Your task to perform on an android device: Open accessibility settings Image 0: 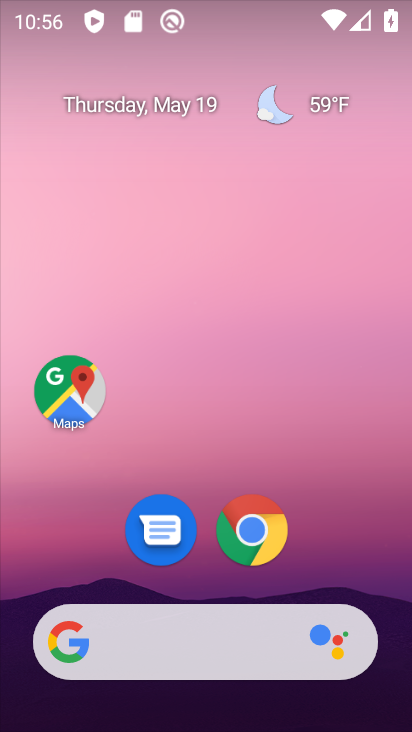
Step 0: drag from (359, 550) to (331, 170)
Your task to perform on an android device: Open accessibility settings Image 1: 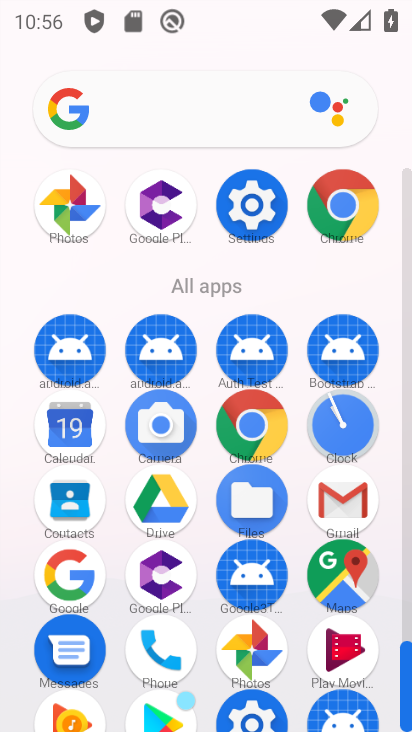
Step 1: click (257, 204)
Your task to perform on an android device: Open accessibility settings Image 2: 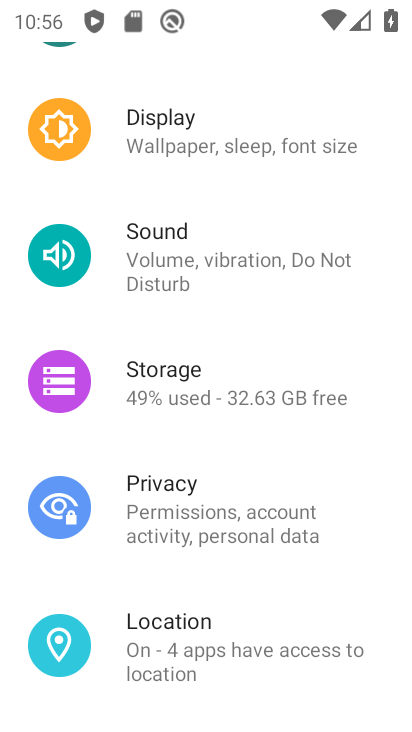
Step 2: drag from (262, 187) to (277, 573)
Your task to perform on an android device: Open accessibility settings Image 3: 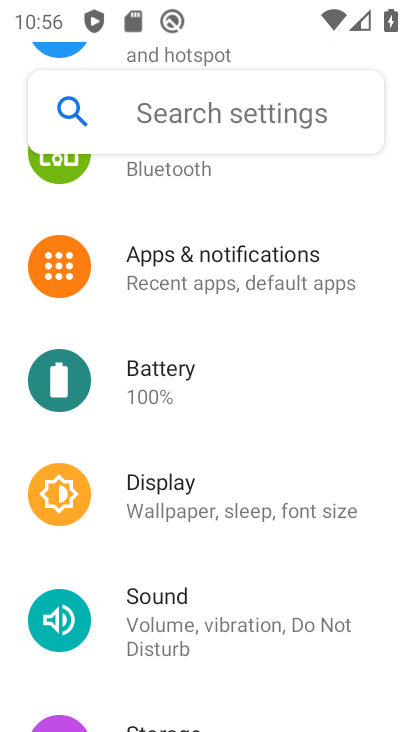
Step 3: drag from (275, 658) to (297, 204)
Your task to perform on an android device: Open accessibility settings Image 4: 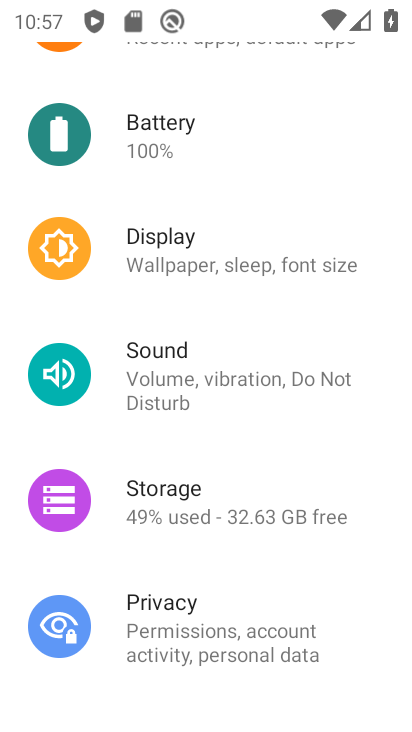
Step 4: drag from (232, 658) to (228, 255)
Your task to perform on an android device: Open accessibility settings Image 5: 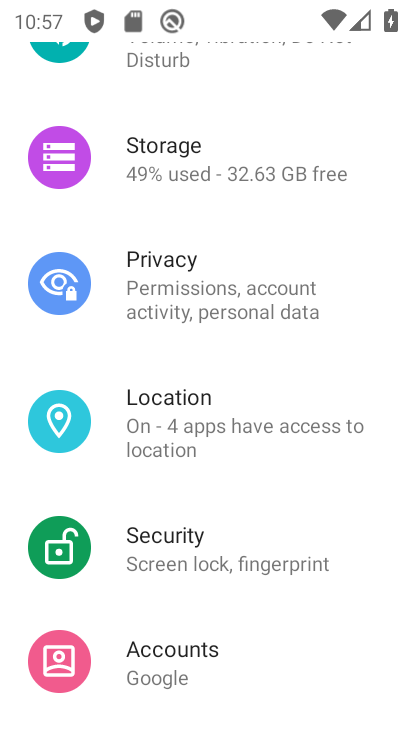
Step 5: drag from (210, 697) to (292, 232)
Your task to perform on an android device: Open accessibility settings Image 6: 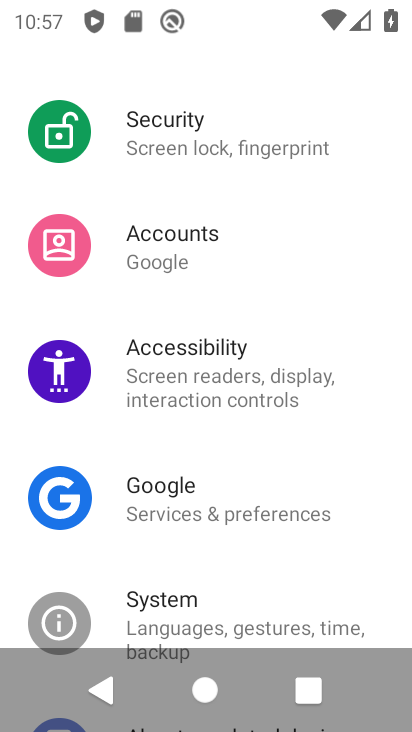
Step 6: click (170, 389)
Your task to perform on an android device: Open accessibility settings Image 7: 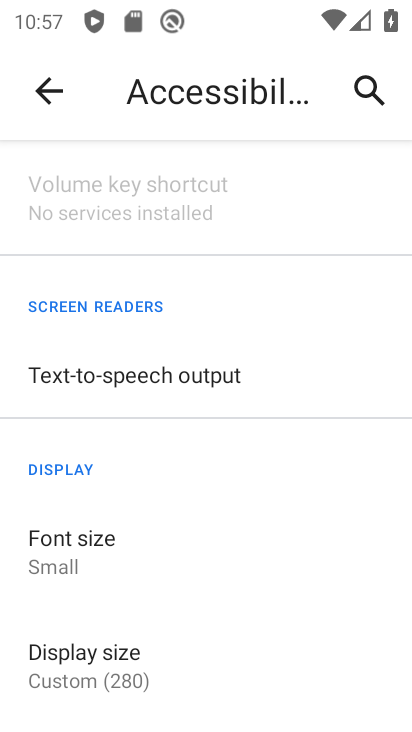
Step 7: task complete